Your task to perform on an android device: Search for corsair k70 on costco.com, select the first entry, add it to the cart, then select checkout. Image 0: 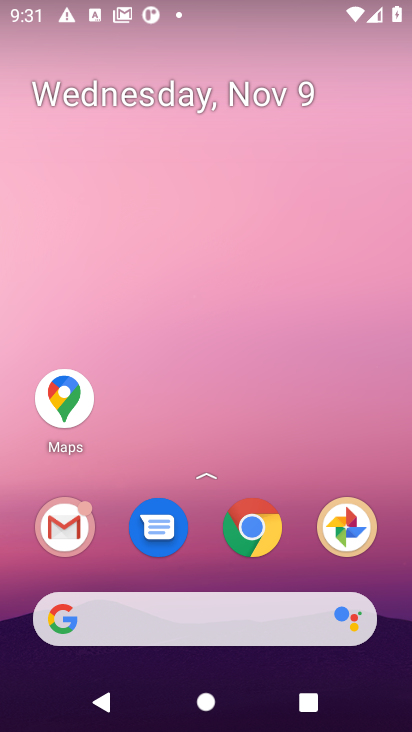
Step 0: click (257, 535)
Your task to perform on an android device: Search for corsair k70 on costco.com, select the first entry, add it to the cart, then select checkout. Image 1: 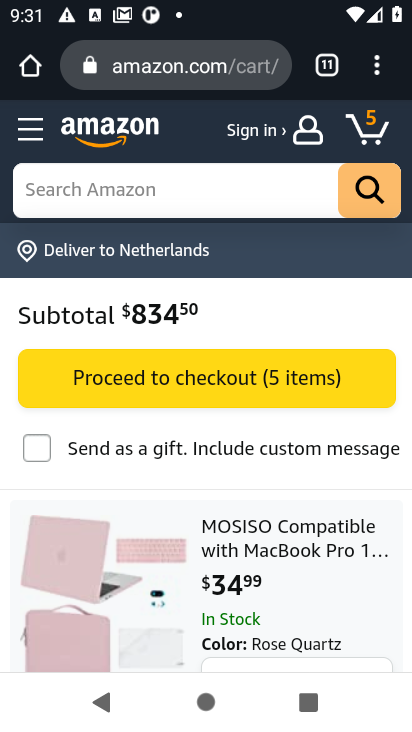
Step 1: click (169, 75)
Your task to perform on an android device: Search for corsair k70 on costco.com, select the first entry, add it to the cart, then select checkout. Image 2: 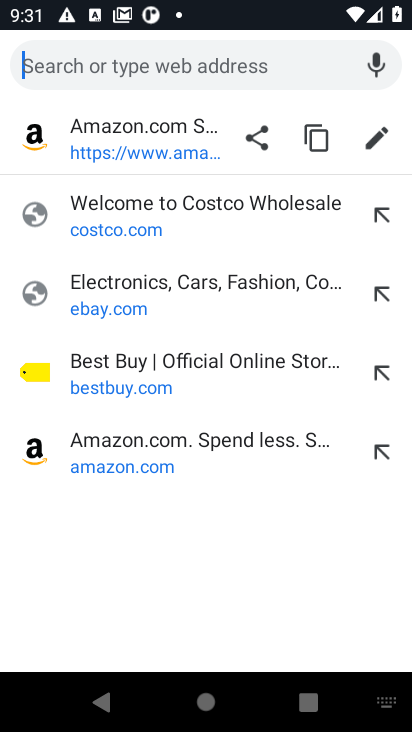
Step 2: click (101, 228)
Your task to perform on an android device: Search for corsair k70 on costco.com, select the first entry, add it to the cart, then select checkout. Image 3: 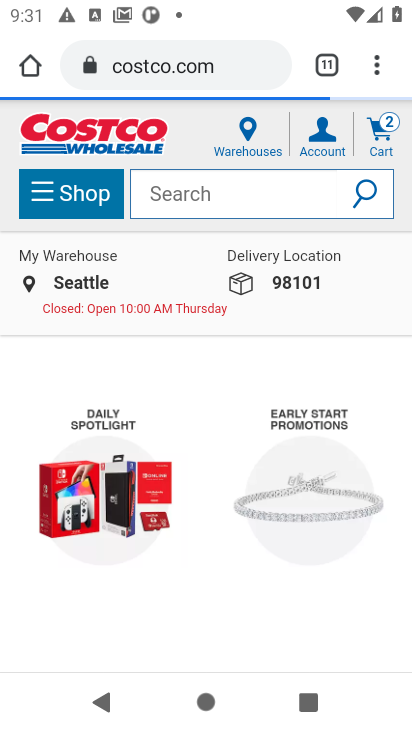
Step 3: click (161, 201)
Your task to perform on an android device: Search for corsair k70 on costco.com, select the first entry, add it to the cart, then select checkout. Image 4: 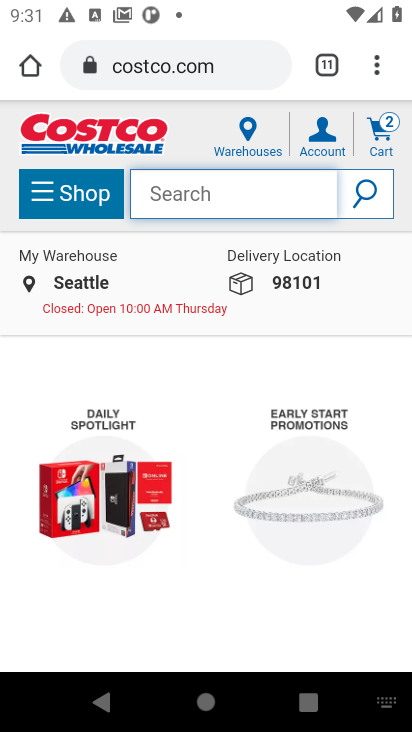
Step 4: type " corsair k70"
Your task to perform on an android device: Search for corsair k70 on costco.com, select the first entry, add it to the cart, then select checkout. Image 5: 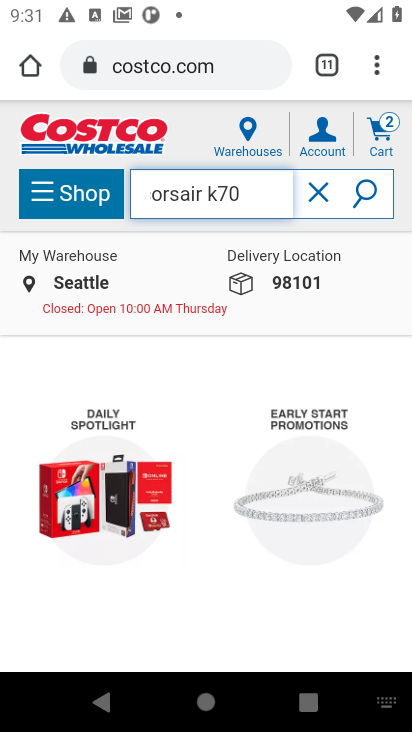
Step 5: click (366, 201)
Your task to perform on an android device: Search for corsair k70 on costco.com, select the first entry, add it to the cart, then select checkout. Image 6: 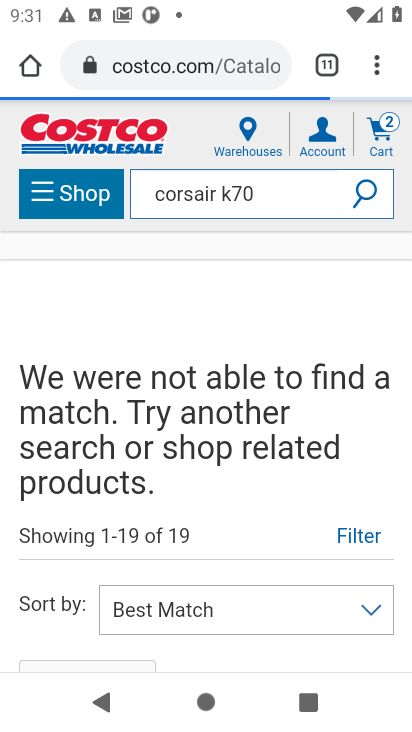
Step 6: task complete